Your task to perform on an android device: check android version Image 0: 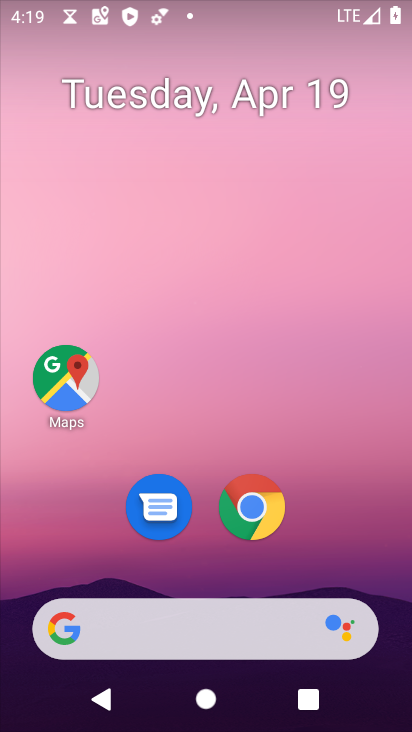
Step 0: drag from (349, 536) to (365, 44)
Your task to perform on an android device: check android version Image 1: 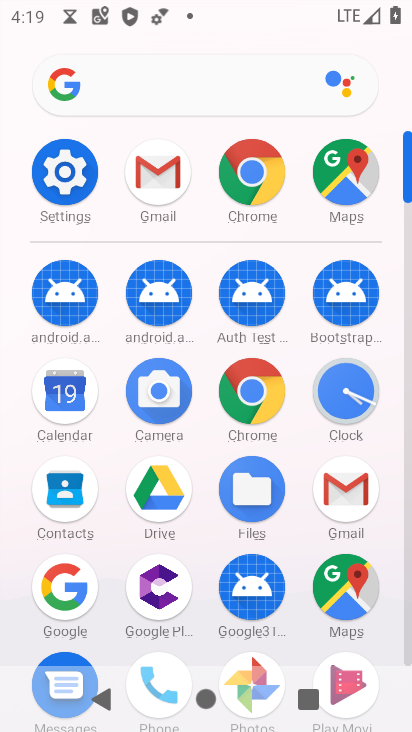
Step 1: click (55, 174)
Your task to perform on an android device: check android version Image 2: 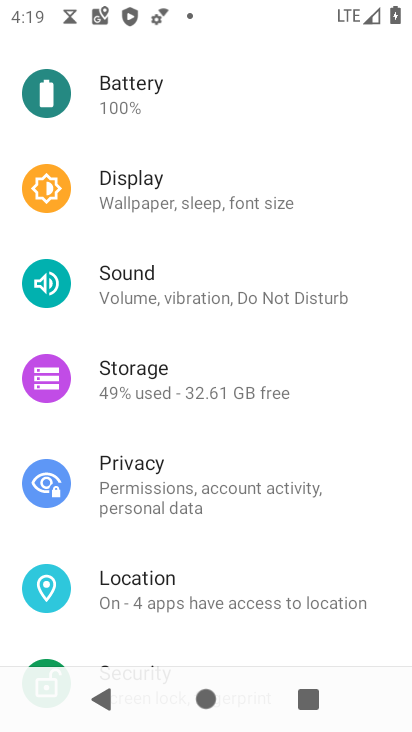
Step 2: drag from (187, 506) to (195, 342)
Your task to perform on an android device: check android version Image 3: 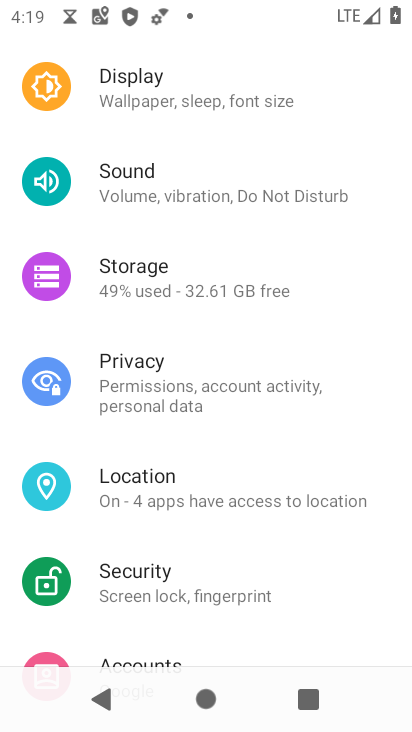
Step 3: drag from (161, 503) to (178, 327)
Your task to perform on an android device: check android version Image 4: 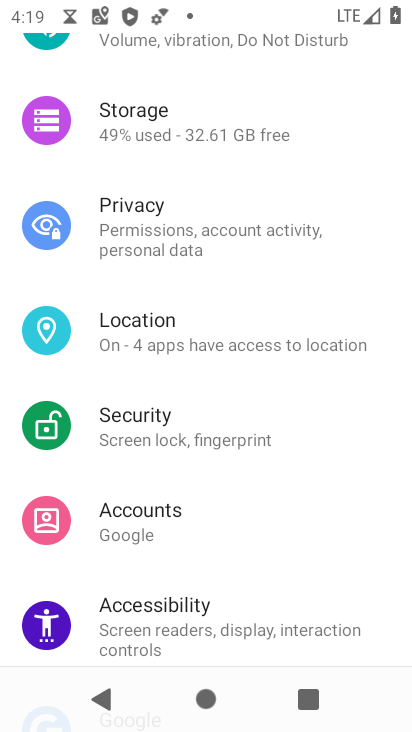
Step 4: drag from (178, 526) to (172, 348)
Your task to perform on an android device: check android version Image 5: 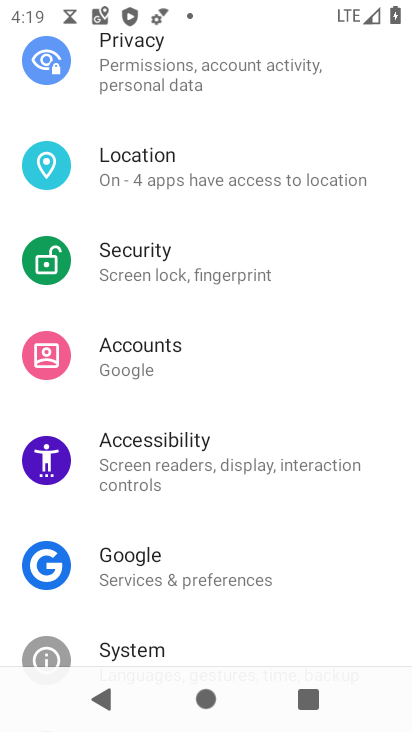
Step 5: drag from (157, 549) to (215, 416)
Your task to perform on an android device: check android version Image 6: 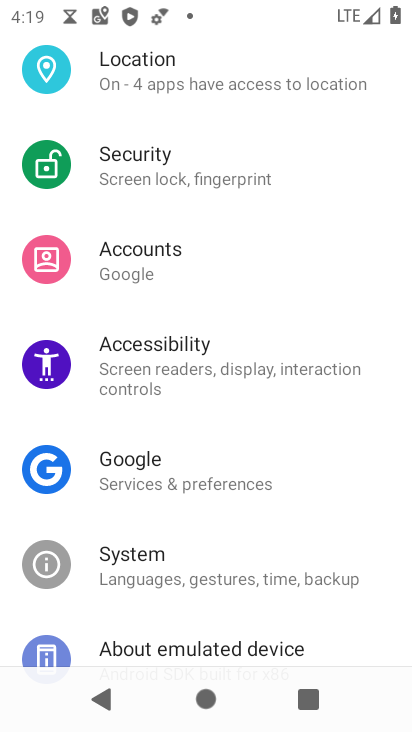
Step 6: drag from (161, 556) to (240, 326)
Your task to perform on an android device: check android version Image 7: 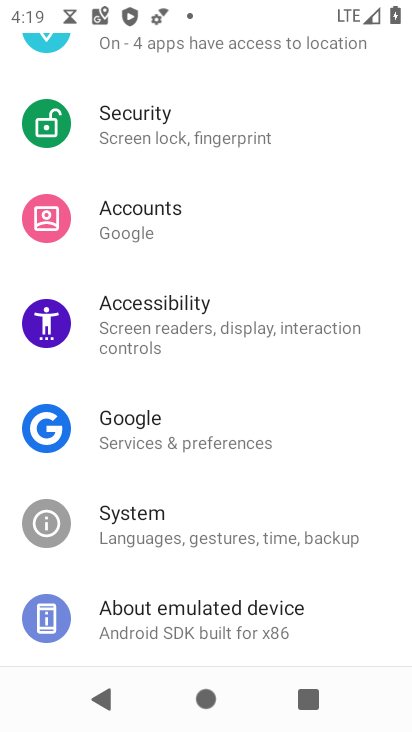
Step 7: click (179, 605)
Your task to perform on an android device: check android version Image 8: 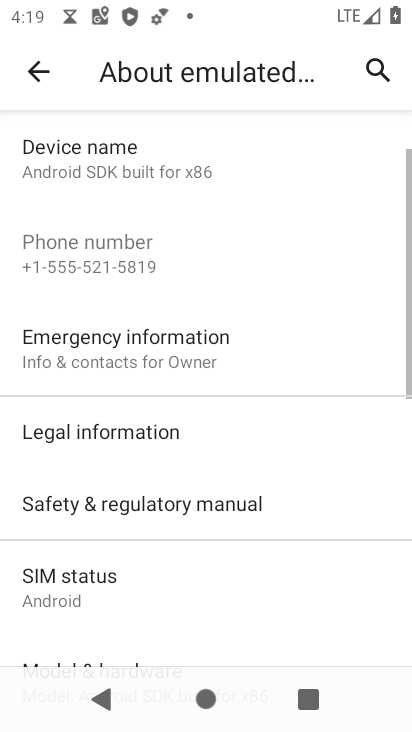
Step 8: drag from (182, 564) to (215, 349)
Your task to perform on an android device: check android version Image 9: 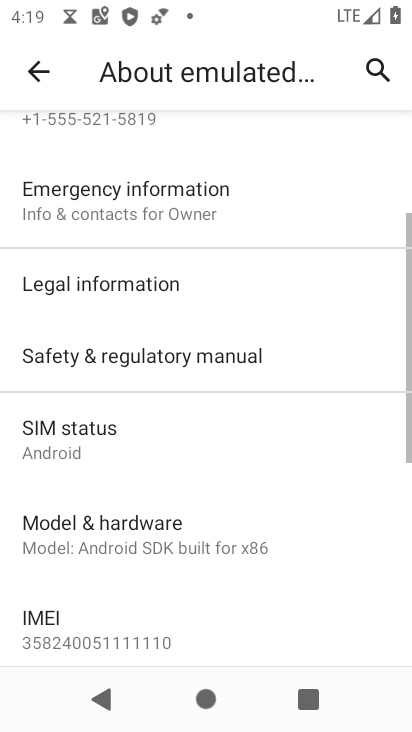
Step 9: drag from (188, 517) to (216, 341)
Your task to perform on an android device: check android version Image 10: 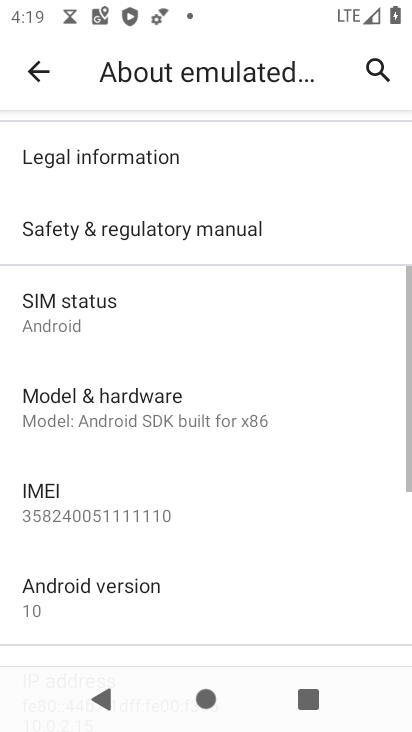
Step 10: drag from (202, 558) to (225, 371)
Your task to perform on an android device: check android version Image 11: 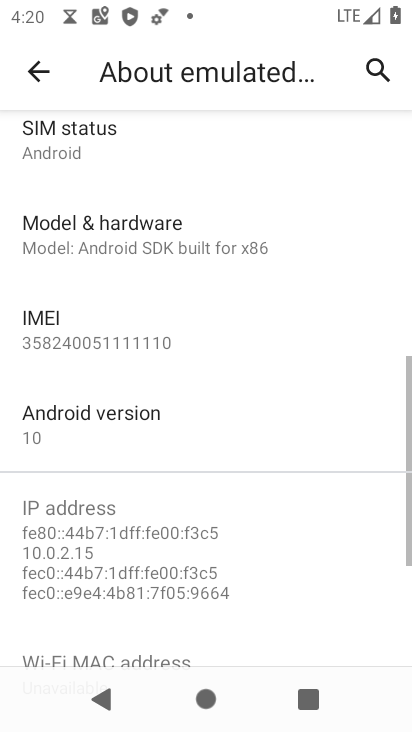
Step 11: drag from (307, 573) to (296, 309)
Your task to perform on an android device: check android version Image 12: 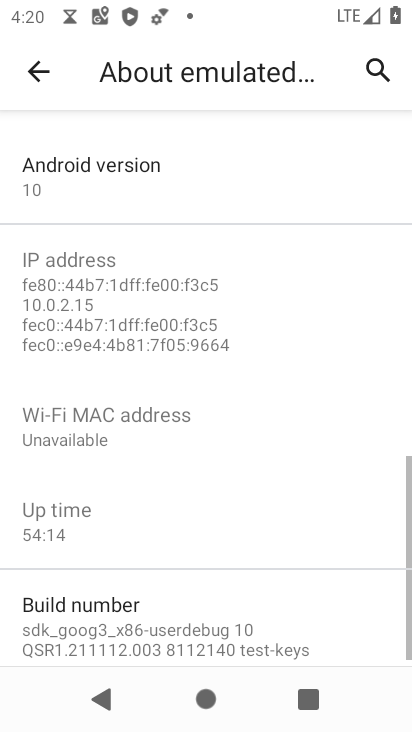
Step 12: drag from (157, 499) to (225, 334)
Your task to perform on an android device: check android version Image 13: 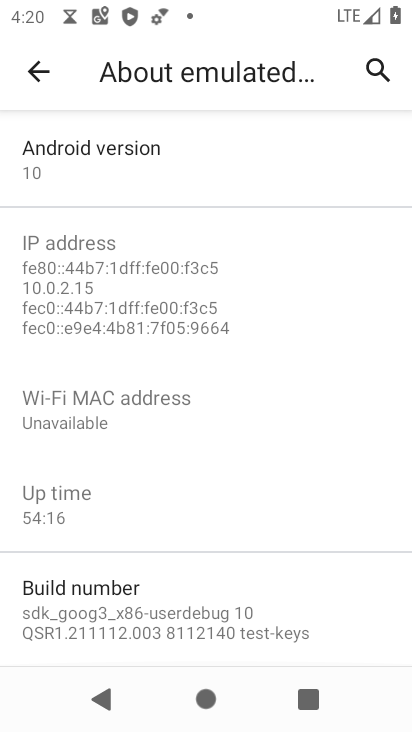
Step 13: click (284, 192)
Your task to perform on an android device: check android version Image 14: 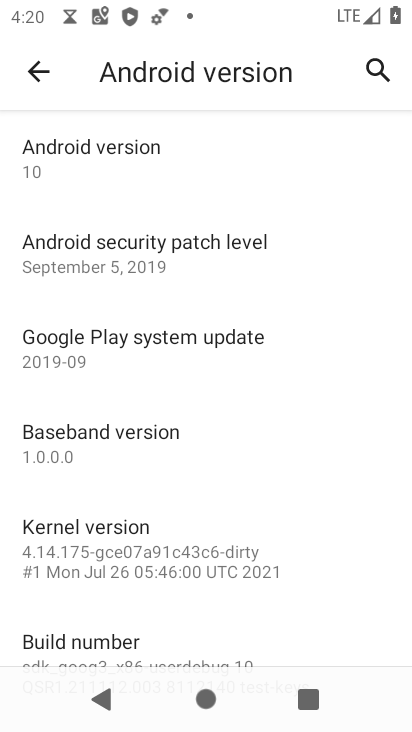
Step 14: task complete